Your task to perform on an android device: Open Maps and search for coffee Image 0: 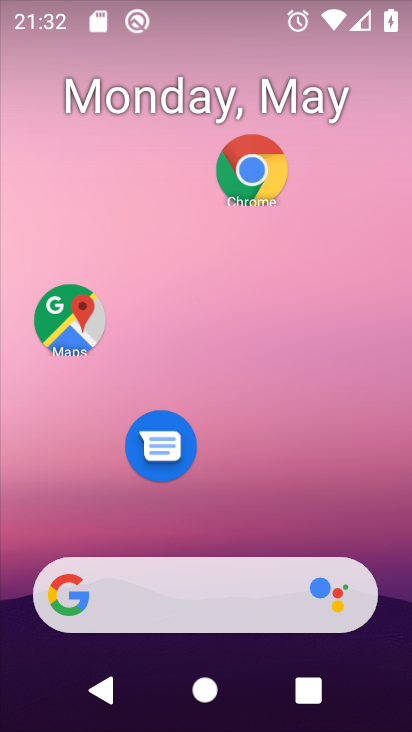
Step 0: press home button
Your task to perform on an android device: Open Maps and search for coffee Image 1: 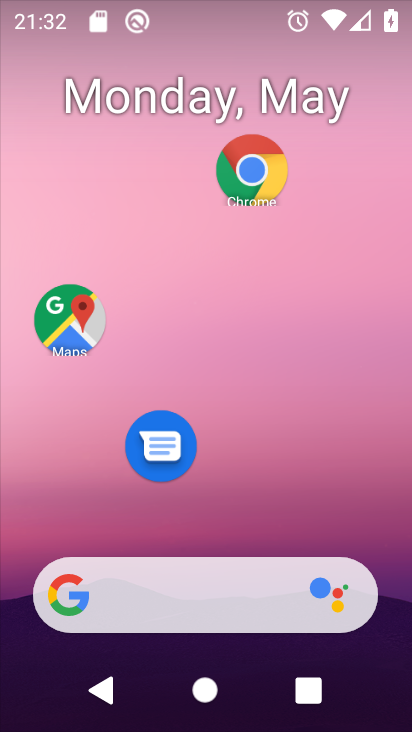
Step 1: click (68, 315)
Your task to perform on an android device: Open Maps and search for coffee Image 2: 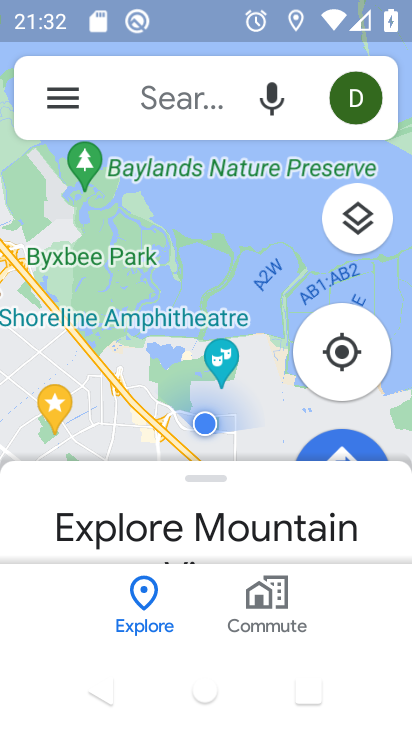
Step 2: click (141, 91)
Your task to perform on an android device: Open Maps and search for coffee Image 3: 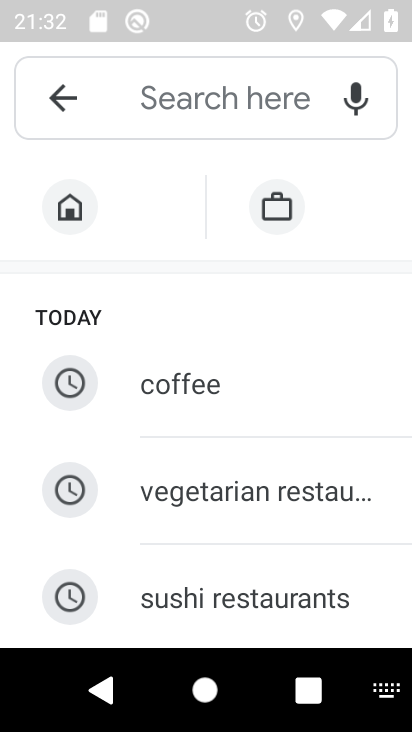
Step 3: click (245, 378)
Your task to perform on an android device: Open Maps and search for coffee Image 4: 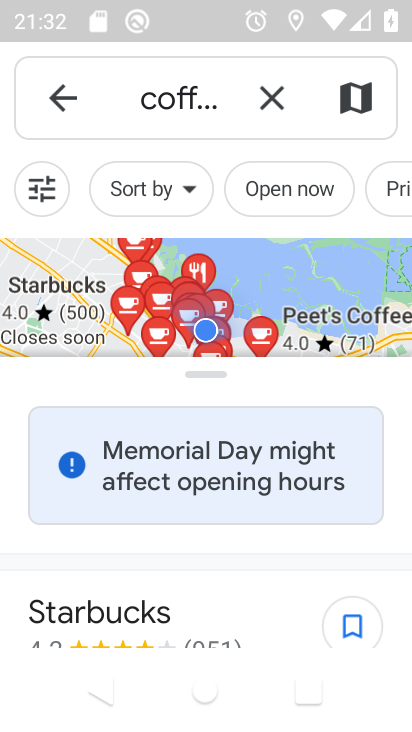
Step 4: task complete